Your task to perform on an android device: Search for Mexican restaurants on Maps Image 0: 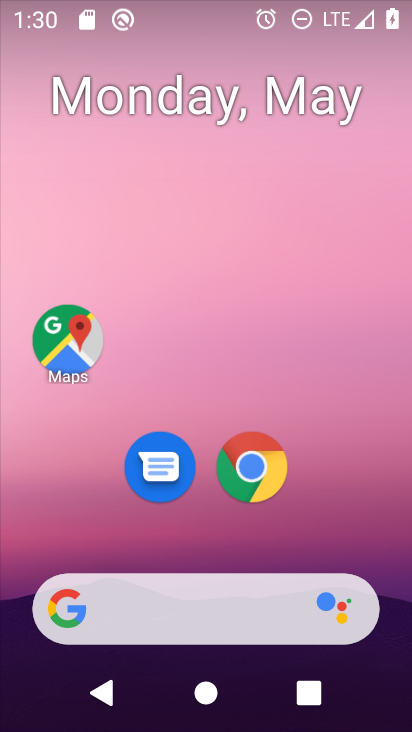
Step 0: click (69, 342)
Your task to perform on an android device: Search for Mexican restaurants on Maps Image 1: 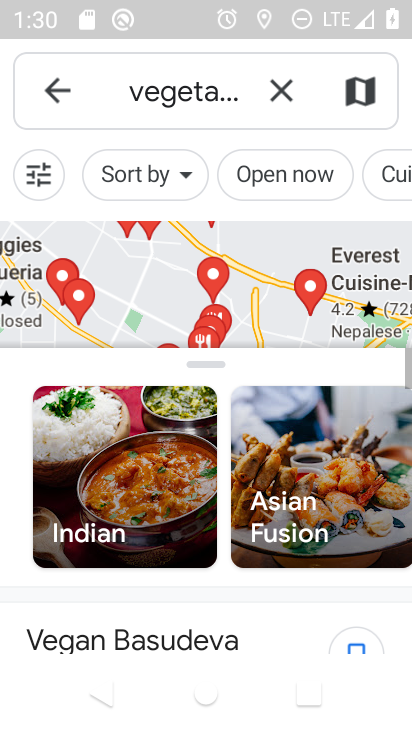
Step 1: click (274, 99)
Your task to perform on an android device: Search for Mexican restaurants on Maps Image 2: 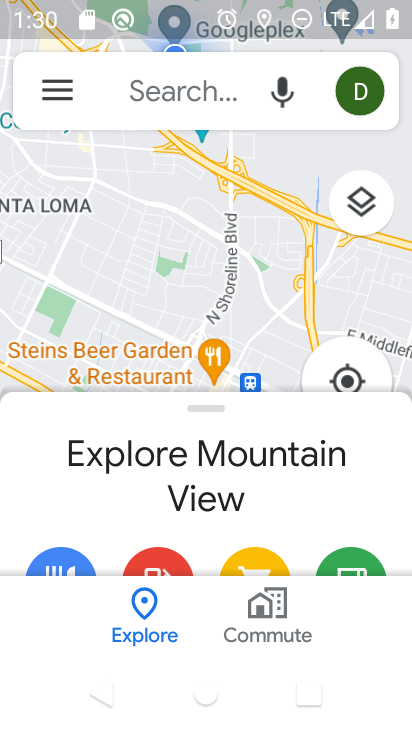
Step 2: click (144, 94)
Your task to perform on an android device: Search for Mexican restaurants on Maps Image 3: 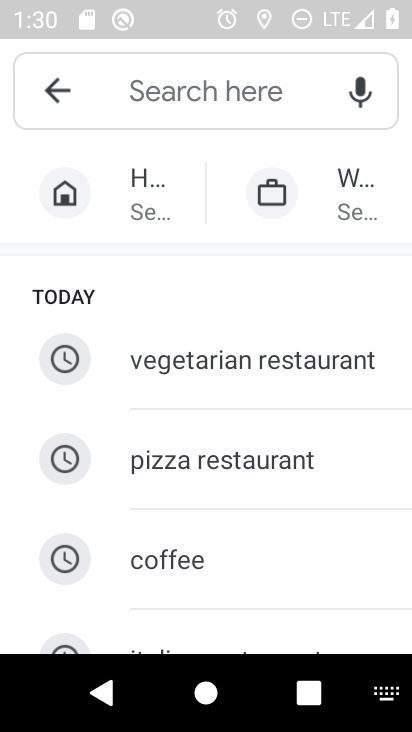
Step 3: type "mexican restaurant"
Your task to perform on an android device: Search for Mexican restaurants on Maps Image 4: 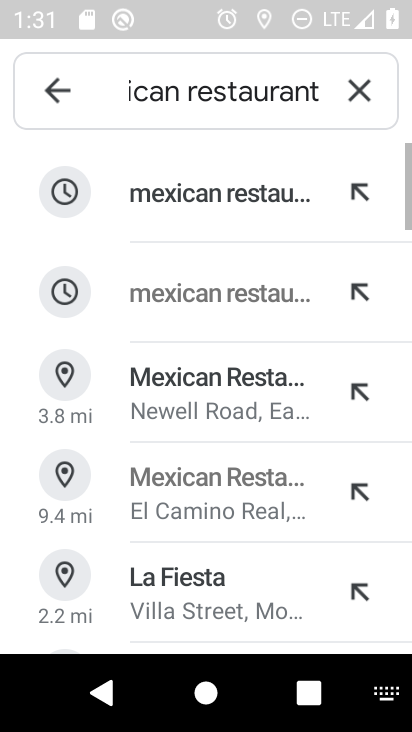
Step 4: click (213, 204)
Your task to perform on an android device: Search for Mexican restaurants on Maps Image 5: 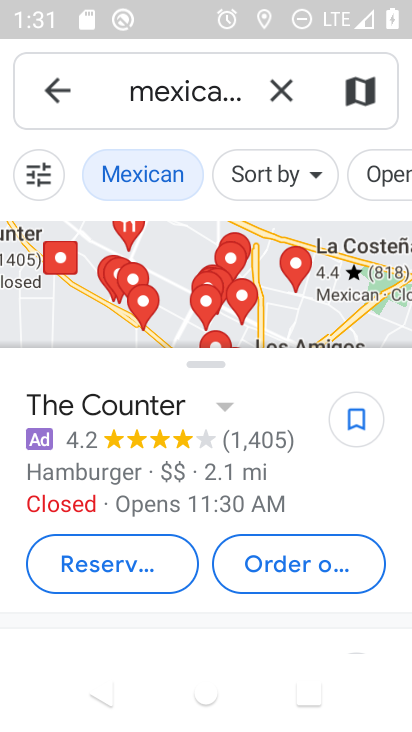
Step 5: task complete